Your task to perform on an android device: Find the nearest grocery store Image 0: 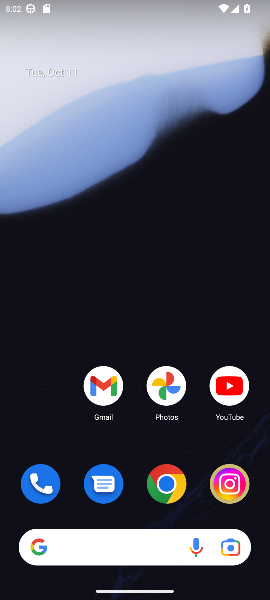
Step 0: click (165, 484)
Your task to perform on an android device: Find the nearest grocery store Image 1: 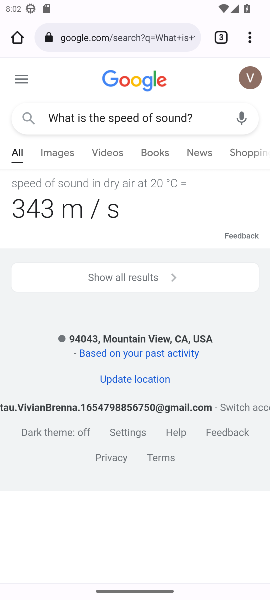
Step 1: click (122, 41)
Your task to perform on an android device: Find the nearest grocery store Image 2: 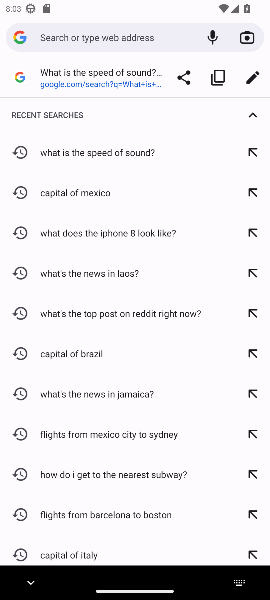
Step 2: type "nearest grocery store"
Your task to perform on an android device: Find the nearest grocery store Image 3: 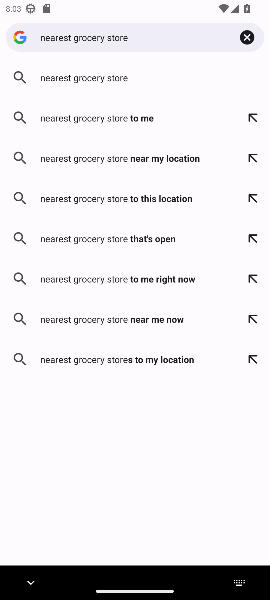
Step 3: click (93, 76)
Your task to perform on an android device: Find the nearest grocery store Image 4: 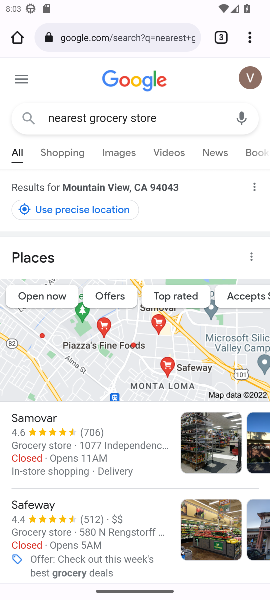
Step 4: task complete